Your task to perform on an android device: Go to location settings Image 0: 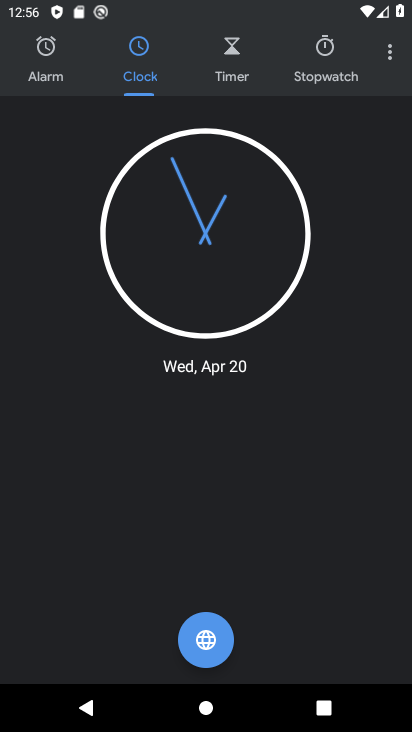
Step 0: press home button
Your task to perform on an android device: Go to location settings Image 1: 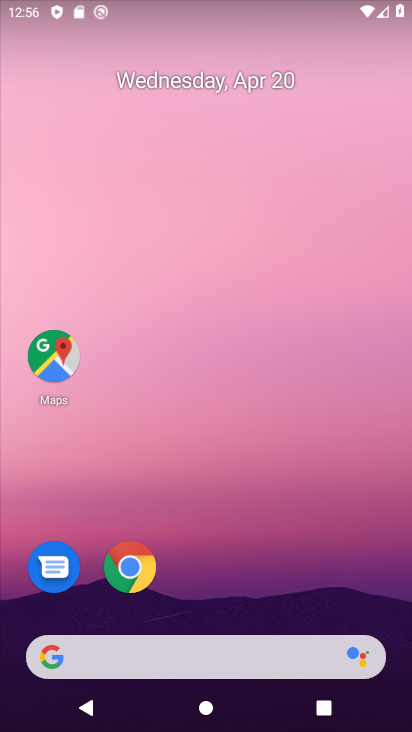
Step 1: drag from (313, 556) to (346, 156)
Your task to perform on an android device: Go to location settings Image 2: 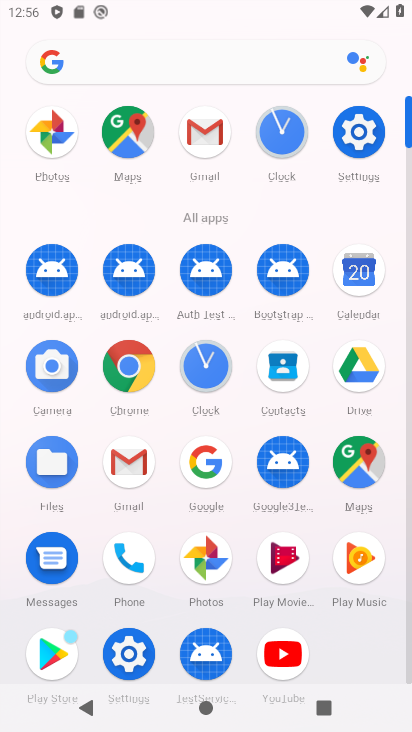
Step 2: click (139, 648)
Your task to perform on an android device: Go to location settings Image 3: 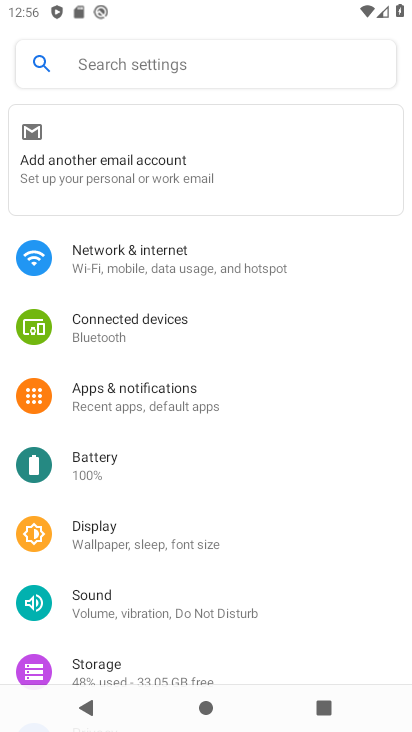
Step 3: drag from (283, 640) to (275, 357)
Your task to perform on an android device: Go to location settings Image 4: 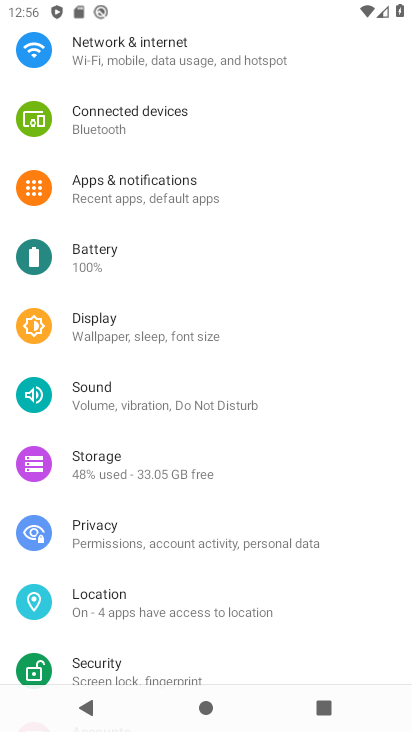
Step 4: click (124, 606)
Your task to perform on an android device: Go to location settings Image 5: 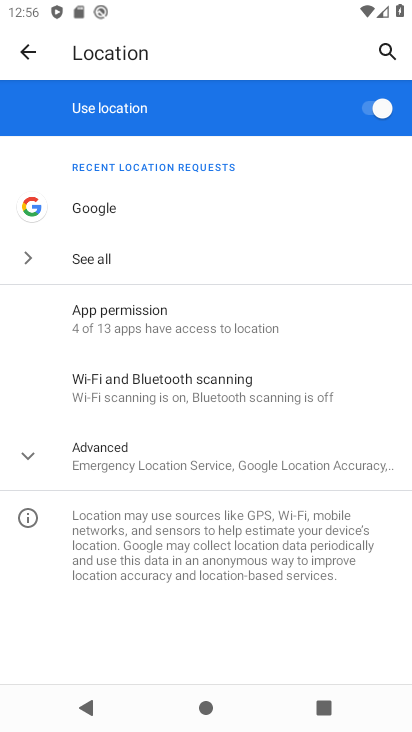
Step 5: task complete